Your task to perform on an android device: turn off javascript in the chrome app Image 0: 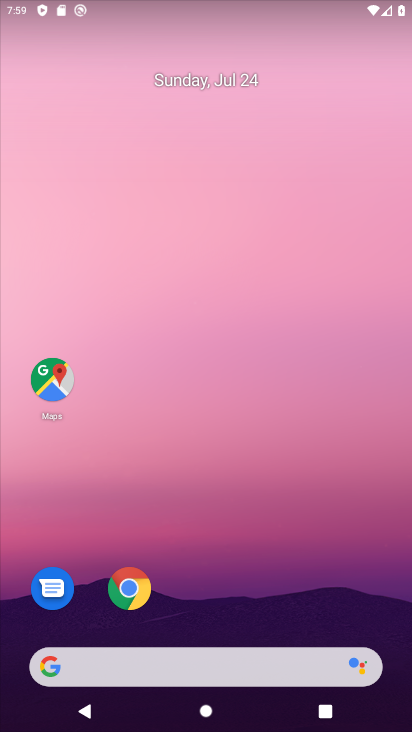
Step 0: click (132, 585)
Your task to perform on an android device: turn off javascript in the chrome app Image 1: 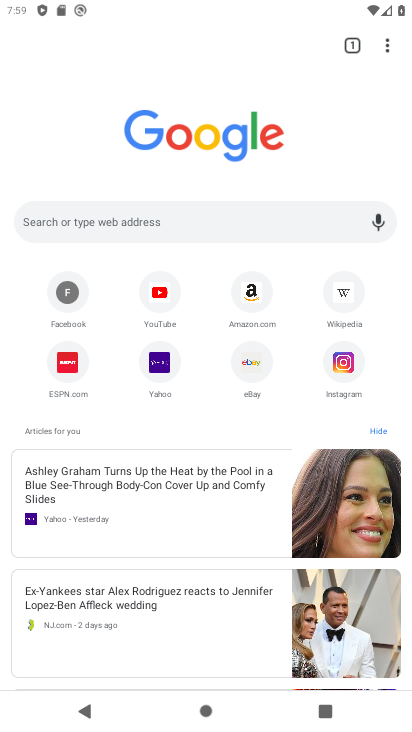
Step 1: click (384, 55)
Your task to perform on an android device: turn off javascript in the chrome app Image 2: 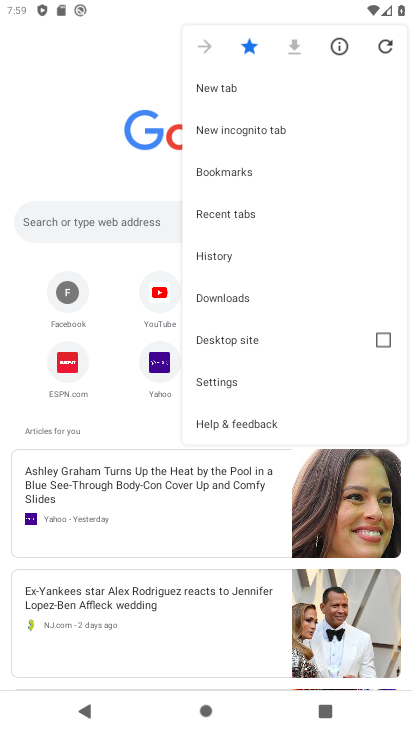
Step 2: click (215, 378)
Your task to perform on an android device: turn off javascript in the chrome app Image 3: 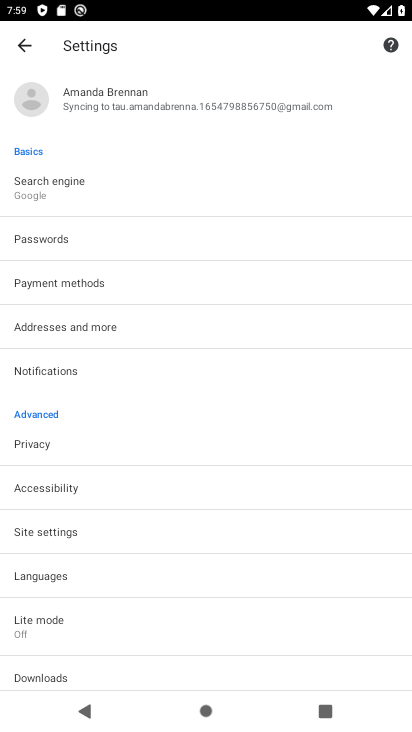
Step 3: click (121, 538)
Your task to perform on an android device: turn off javascript in the chrome app Image 4: 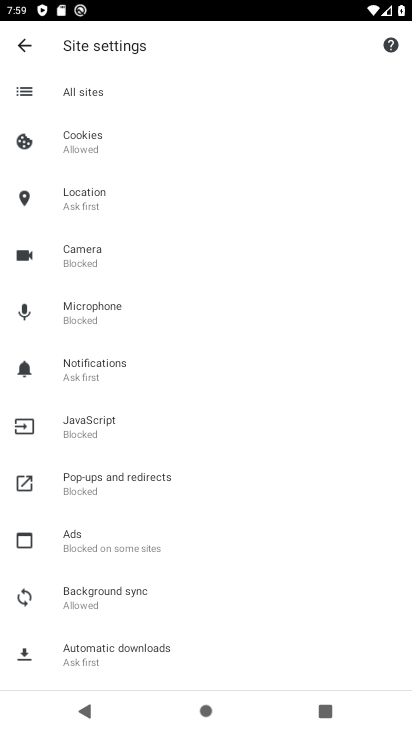
Step 4: click (99, 427)
Your task to perform on an android device: turn off javascript in the chrome app Image 5: 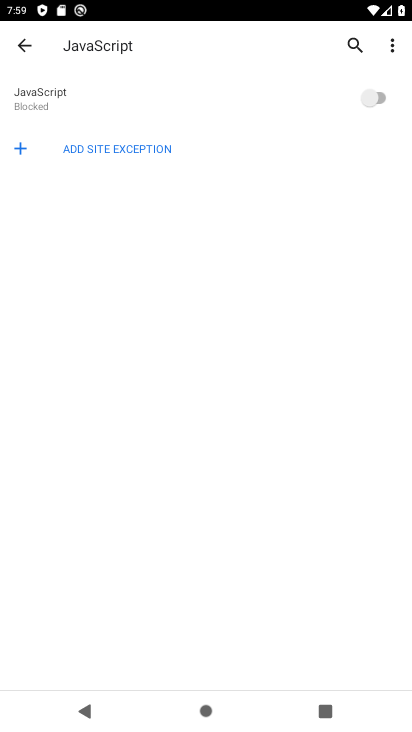
Step 5: task complete